Your task to perform on an android device: visit the assistant section in the google photos Image 0: 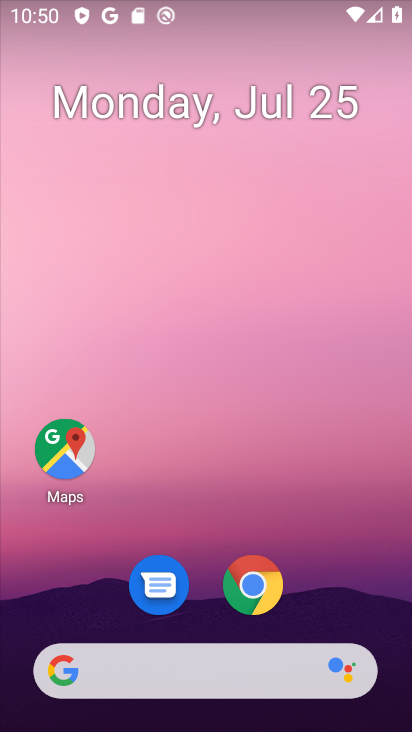
Step 0: drag from (300, 531) to (272, 0)
Your task to perform on an android device: visit the assistant section in the google photos Image 1: 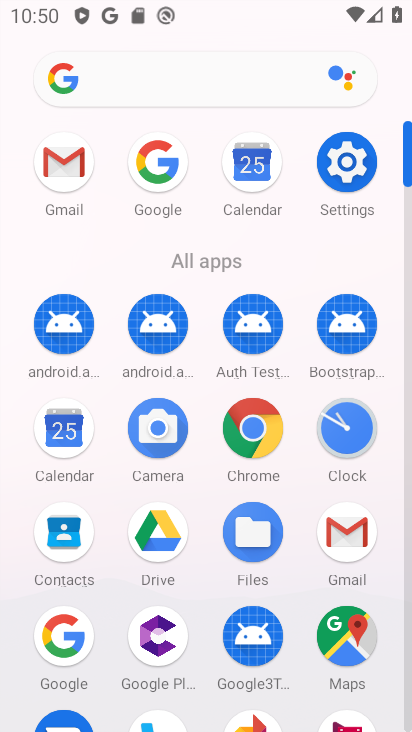
Step 1: drag from (201, 401) to (188, 0)
Your task to perform on an android device: visit the assistant section in the google photos Image 2: 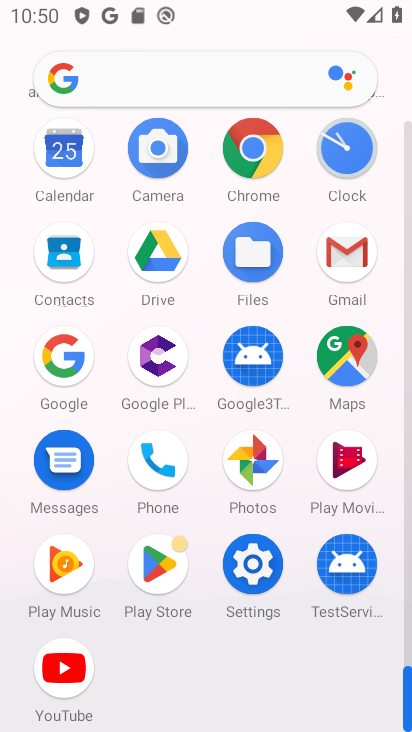
Step 2: click (266, 465)
Your task to perform on an android device: visit the assistant section in the google photos Image 3: 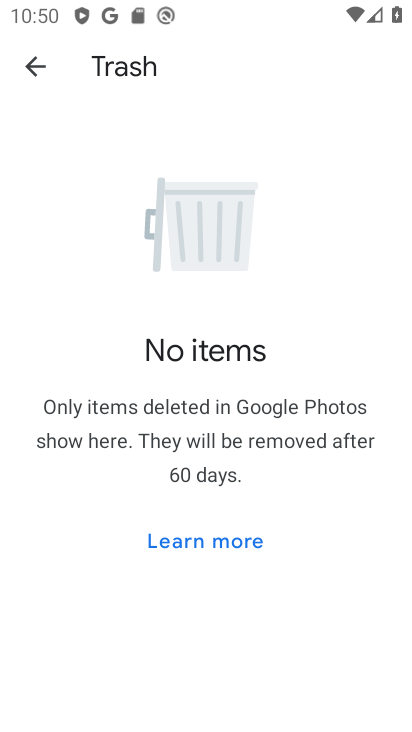
Step 3: click (28, 58)
Your task to perform on an android device: visit the assistant section in the google photos Image 4: 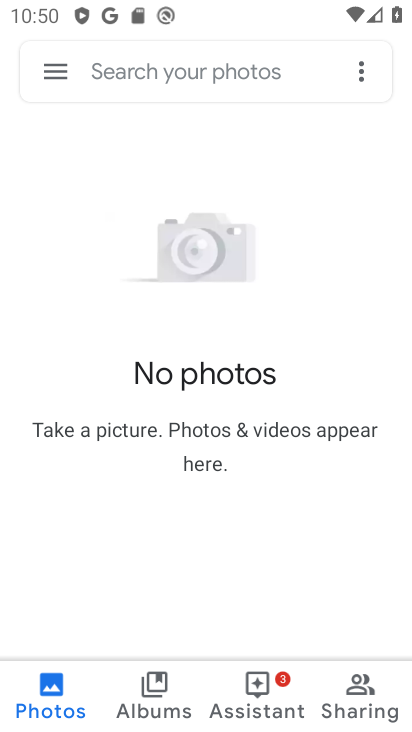
Step 4: click (271, 692)
Your task to perform on an android device: visit the assistant section in the google photos Image 5: 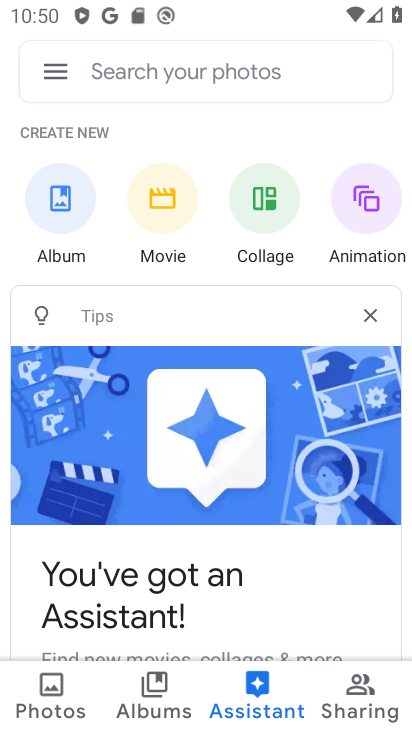
Step 5: task complete